Your task to perform on an android device: Open Android settings Image 0: 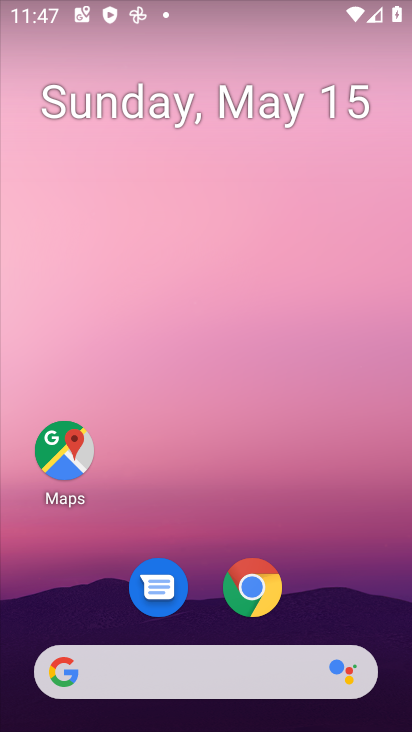
Step 0: drag from (345, 626) to (255, 60)
Your task to perform on an android device: Open Android settings Image 1: 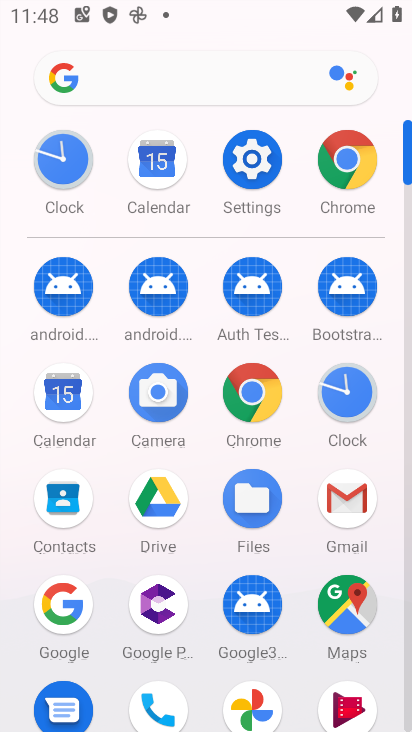
Step 1: click (256, 165)
Your task to perform on an android device: Open Android settings Image 2: 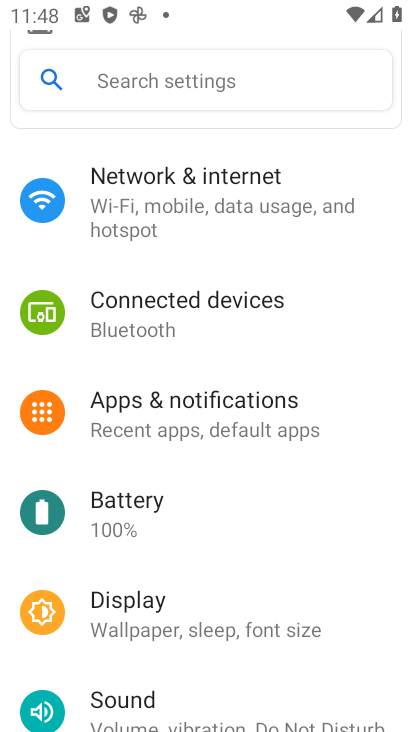
Step 2: drag from (219, 638) to (203, 12)
Your task to perform on an android device: Open Android settings Image 3: 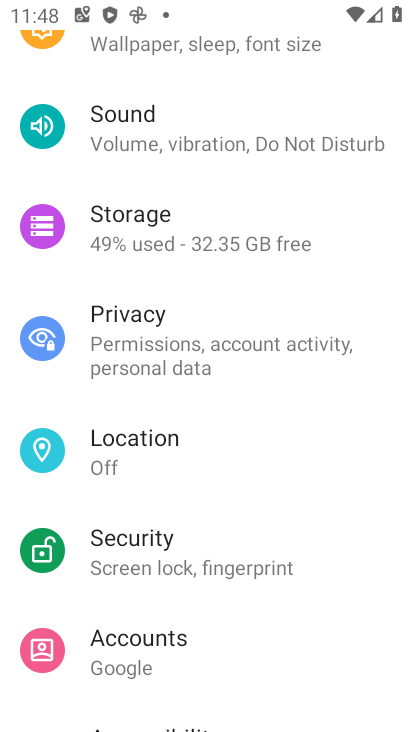
Step 3: drag from (210, 631) to (257, 13)
Your task to perform on an android device: Open Android settings Image 4: 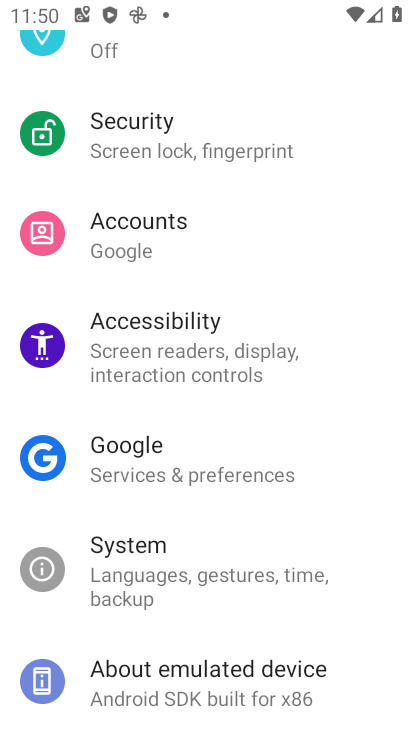
Step 4: click (148, 689)
Your task to perform on an android device: Open Android settings Image 5: 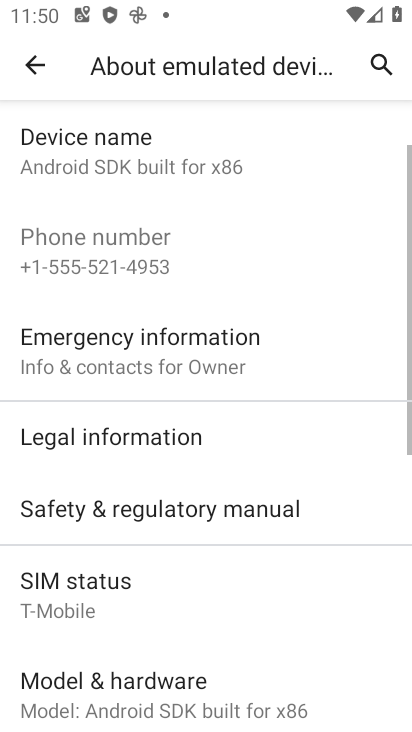
Step 5: drag from (156, 627) to (189, 110)
Your task to perform on an android device: Open Android settings Image 6: 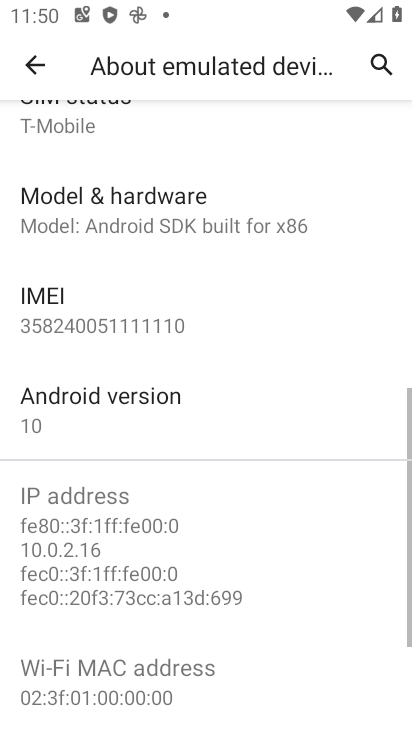
Step 6: click (161, 422)
Your task to perform on an android device: Open Android settings Image 7: 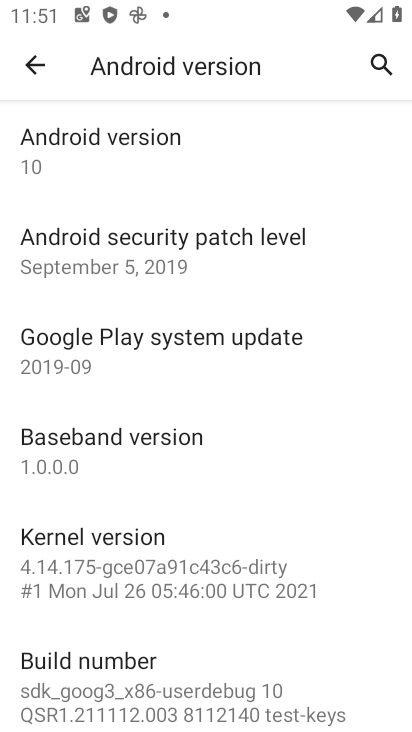
Step 7: task complete